Your task to perform on an android device: Show me productivity apps on the Play Store Image 0: 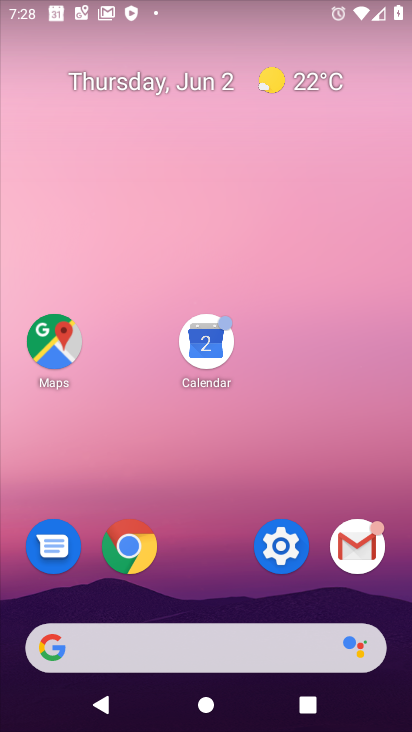
Step 0: drag from (224, 611) to (253, 307)
Your task to perform on an android device: Show me productivity apps on the Play Store Image 1: 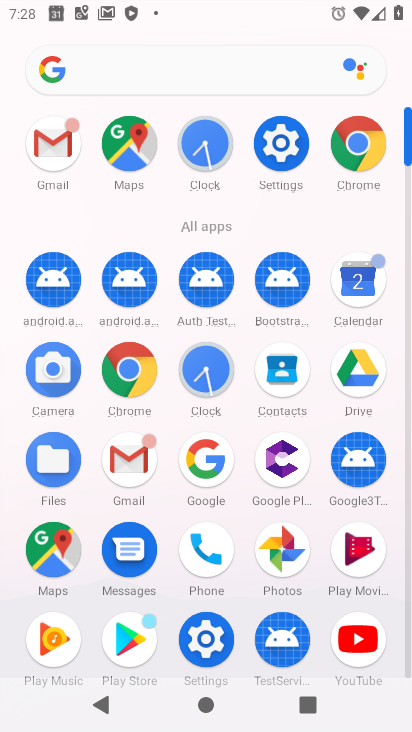
Step 1: click (138, 623)
Your task to perform on an android device: Show me productivity apps on the Play Store Image 2: 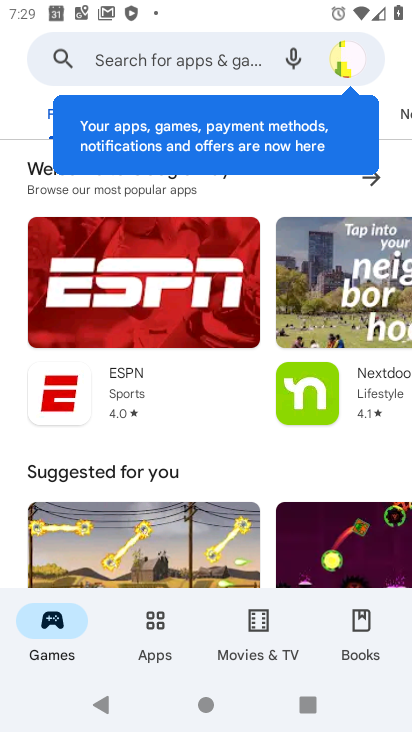
Step 2: click (152, 59)
Your task to perform on an android device: Show me productivity apps on the Play Store Image 3: 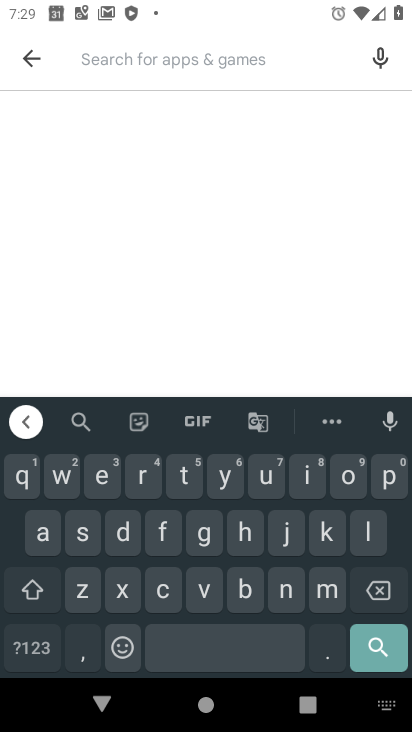
Step 3: click (389, 489)
Your task to perform on an android device: Show me productivity apps on the Play Store Image 4: 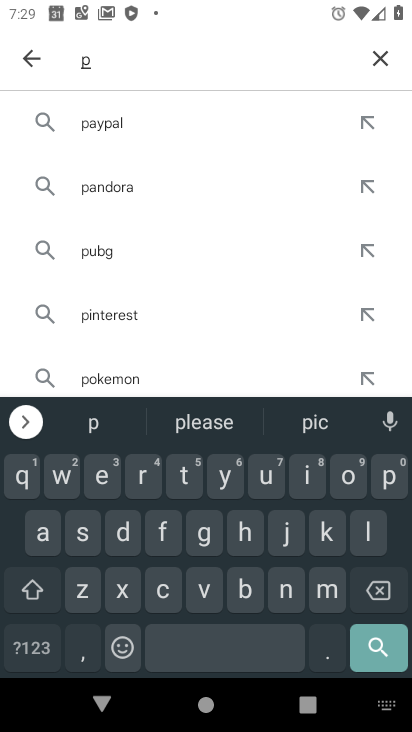
Step 4: click (142, 485)
Your task to perform on an android device: Show me productivity apps on the Play Store Image 5: 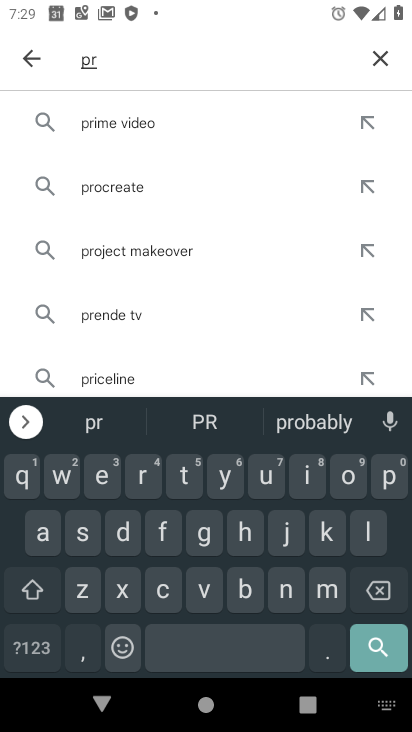
Step 5: click (343, 489)
Your task to perform on an android device: Show me productivity apps on the Play Store Image 6: 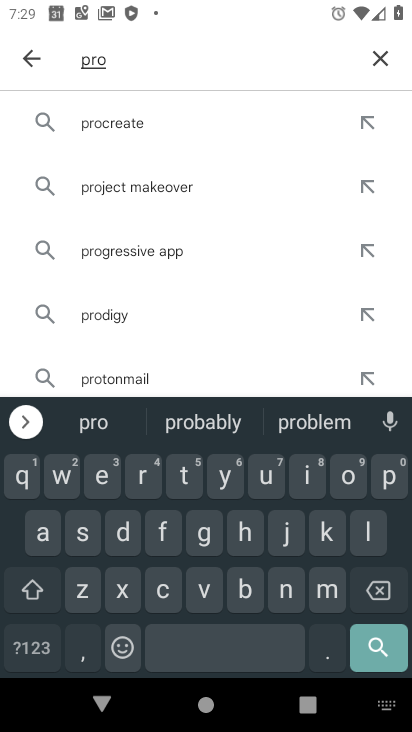
Step 6: click (132, 536)
Your task to perform on an android device: Show me productivity apps on the Play Store Image 7: 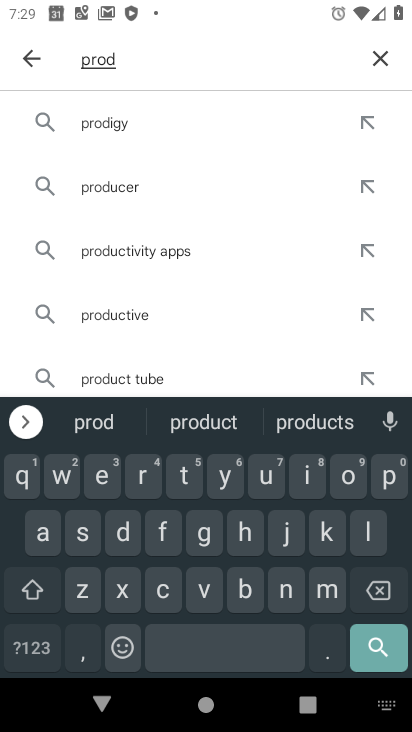
Step 7: click (260, 482)
Your task to perform on an android device: Show me productivity apps on the Play Store Image 8: 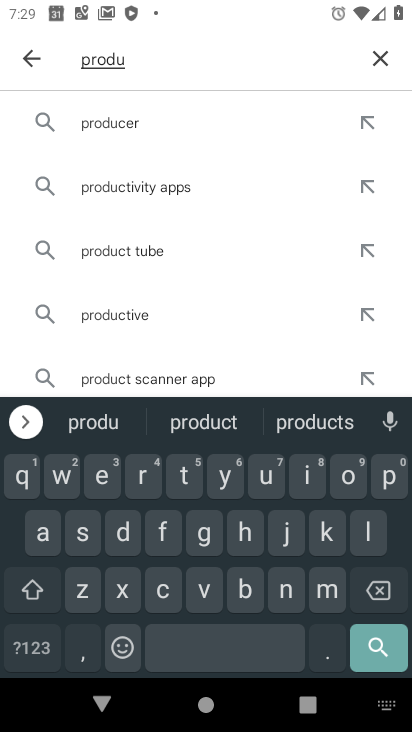
Step 8: click (164, 588)
Your task to perform on an android device: Show me productivity apps on the Play Store Image 9: 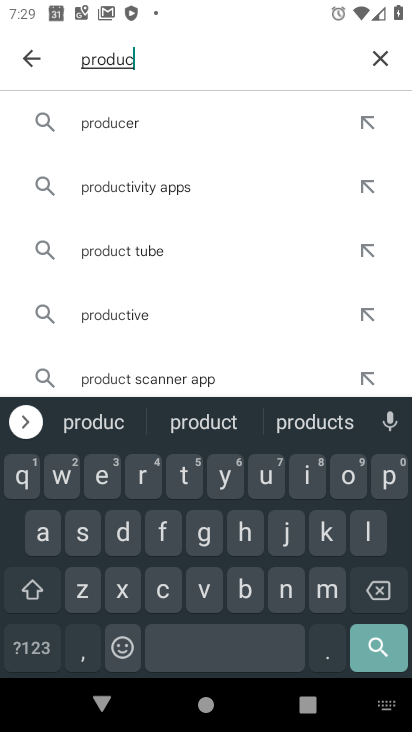
Step 9: click (184, 486)
Your task to perform on an android device: Show me productivity apps on the Play Store Image 10: 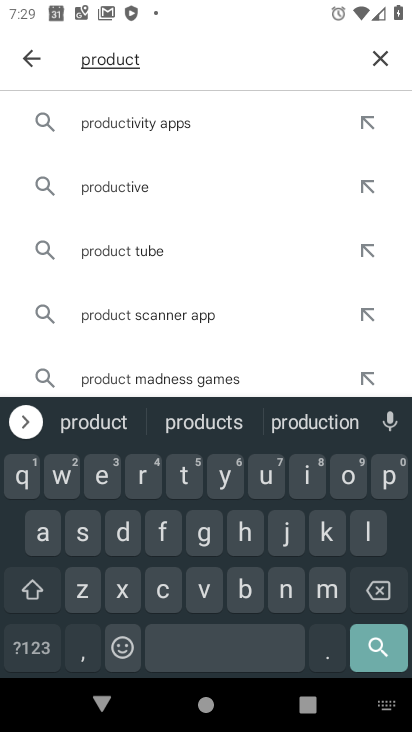
Step 10: click (300, 482)
Your task to perform on an android device: Show me productivity apps on the Play Store Image 11: 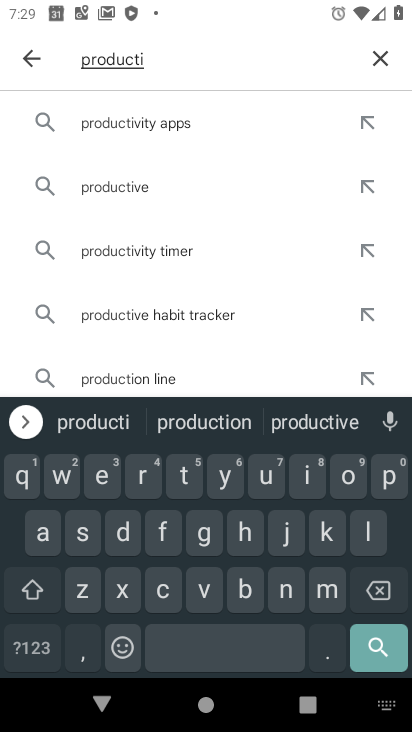
Step 11: click (182, 119)
Your task to perform on an android device: Show me productivity apps on the Play Store Image 12: 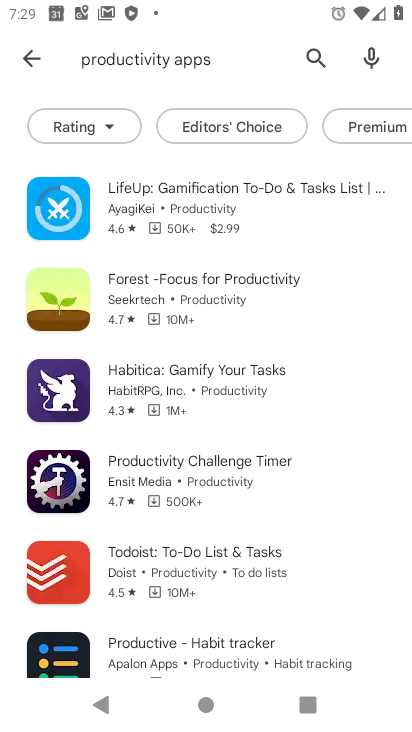
Step 12: task complete